Your task to perform on an android device: Search for dell alienware on newegg.com, select the first entry, and add it to the cart. Image 0: 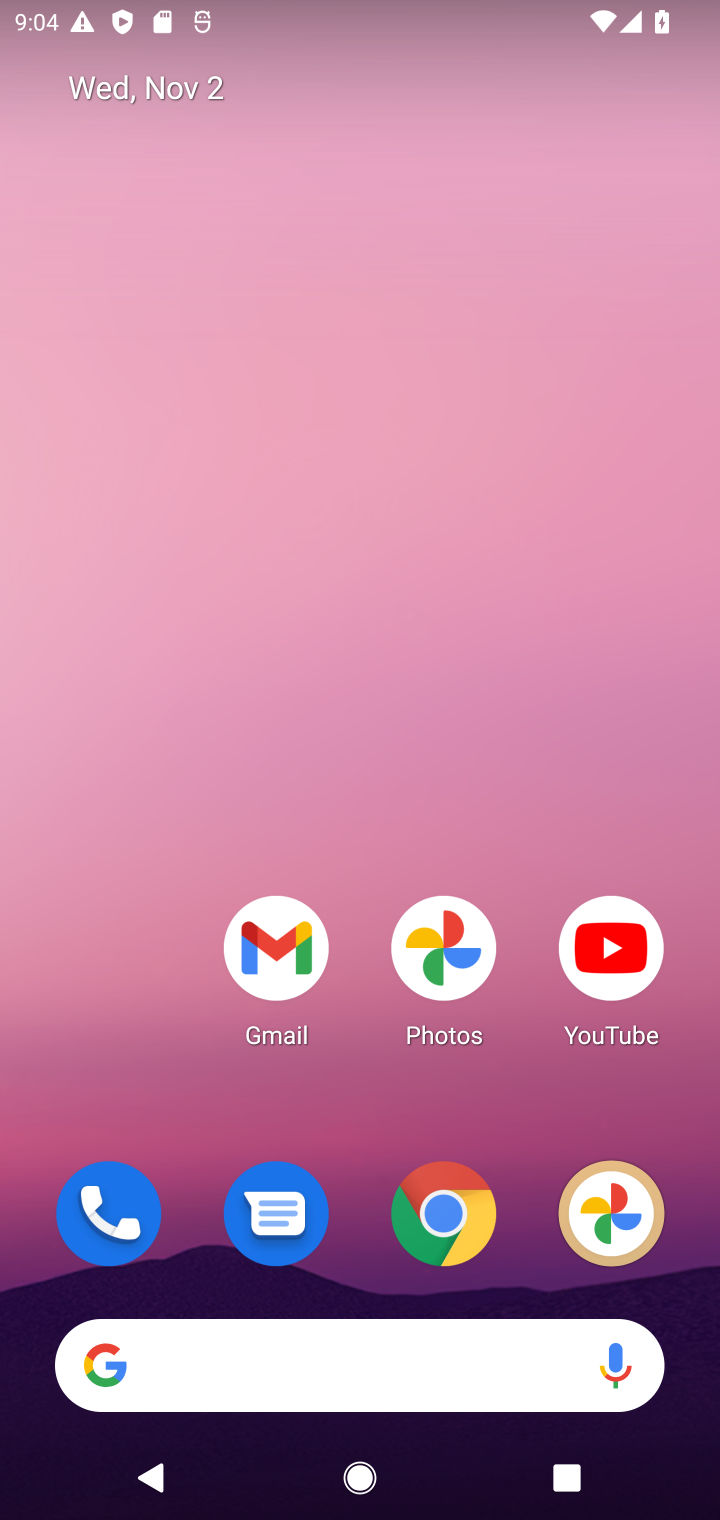
Step 0: click (451, 1246)
Your task to perform on an android device: Search for dell alienware on newegg.com, select the first entry, and add it to the cart. Image 1: 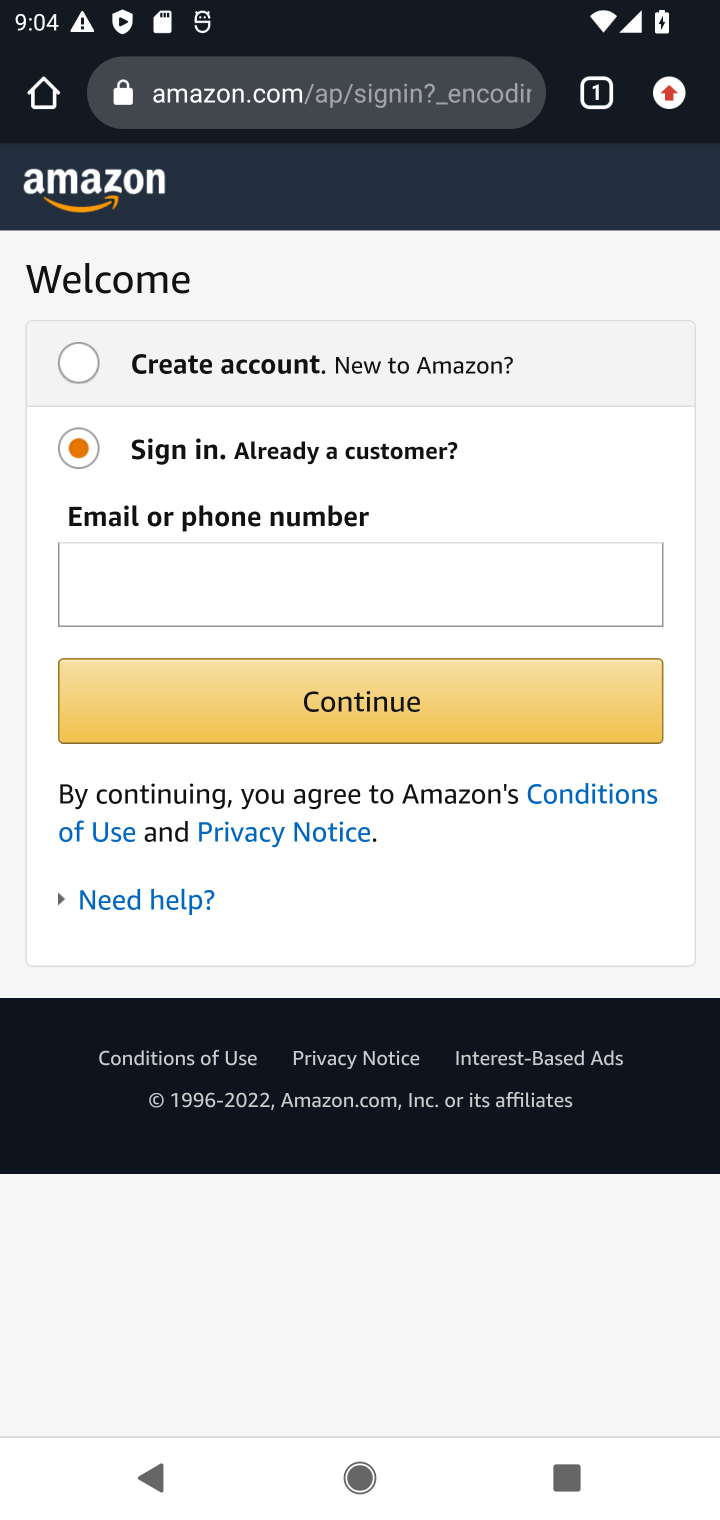
Step 1: click (279, 106)
Your task to perform on an android device: Search for dell alienware on newegg.com, select the first entry, and add it to the cart. Image 2: 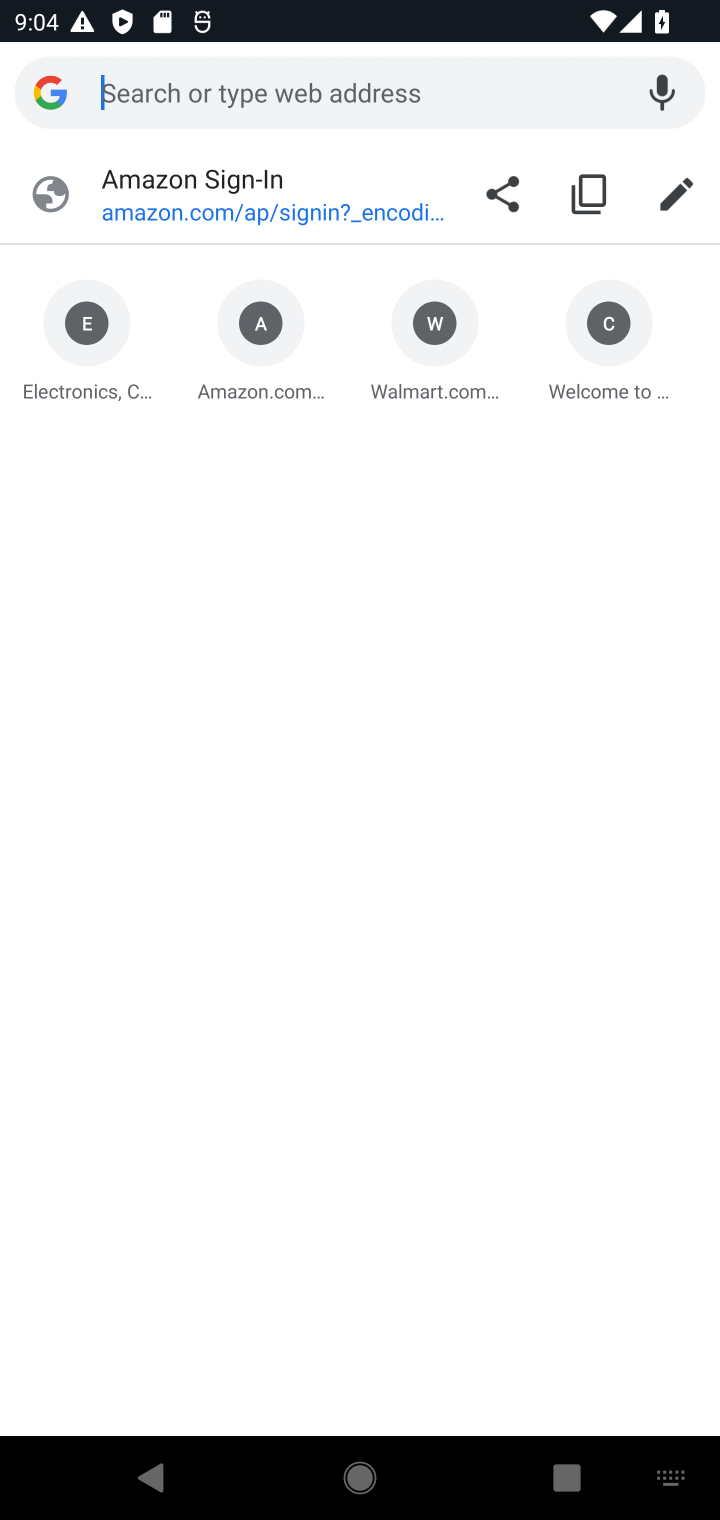
Step 2: type "newegg.com"
Your task to perform on an android device: Search for dell alienware on newegg.com, select the first entry, and add it to the cart. Image 3: 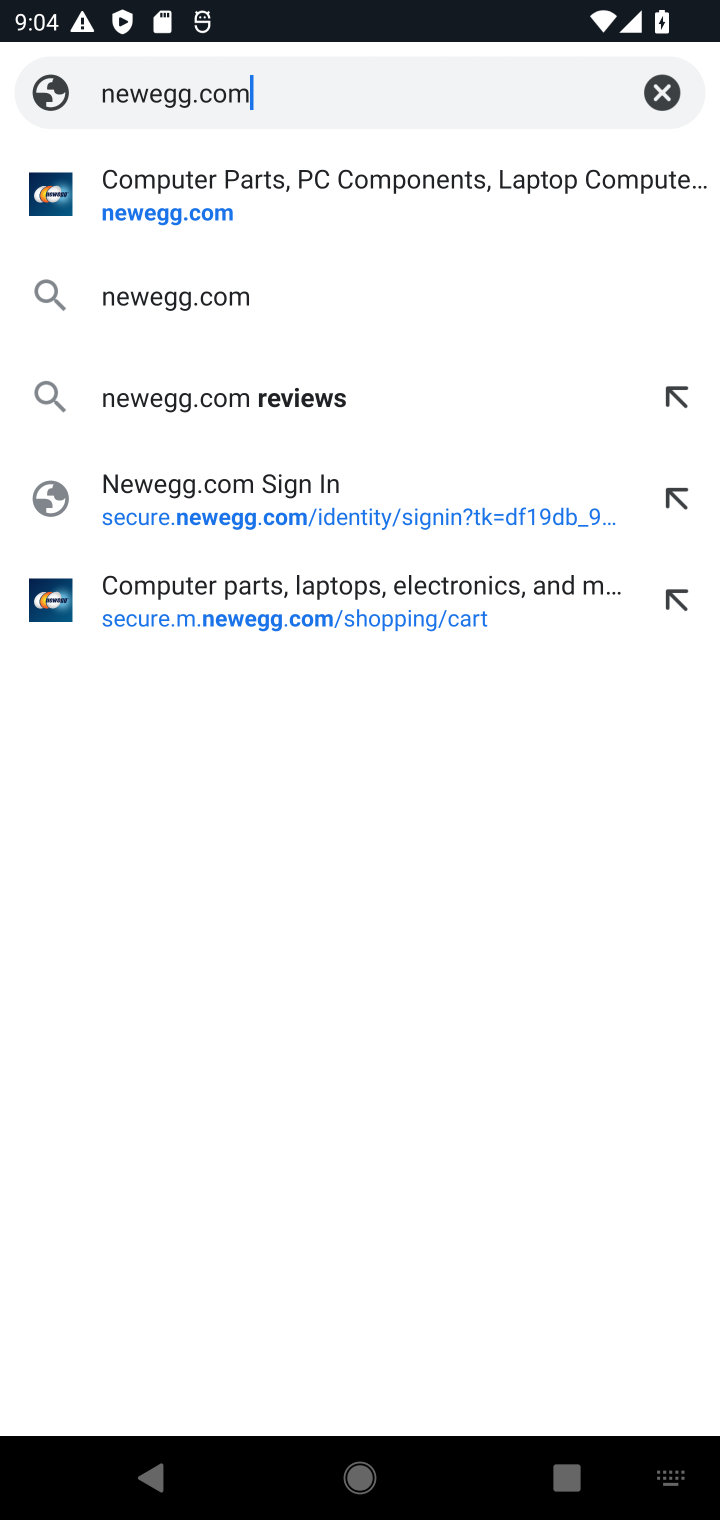
Step 3: click (234, 308)
Your task to perform on an android device: Search for dell alienware on newegg.com, select the first entry, and add it to the cart. Image 4: 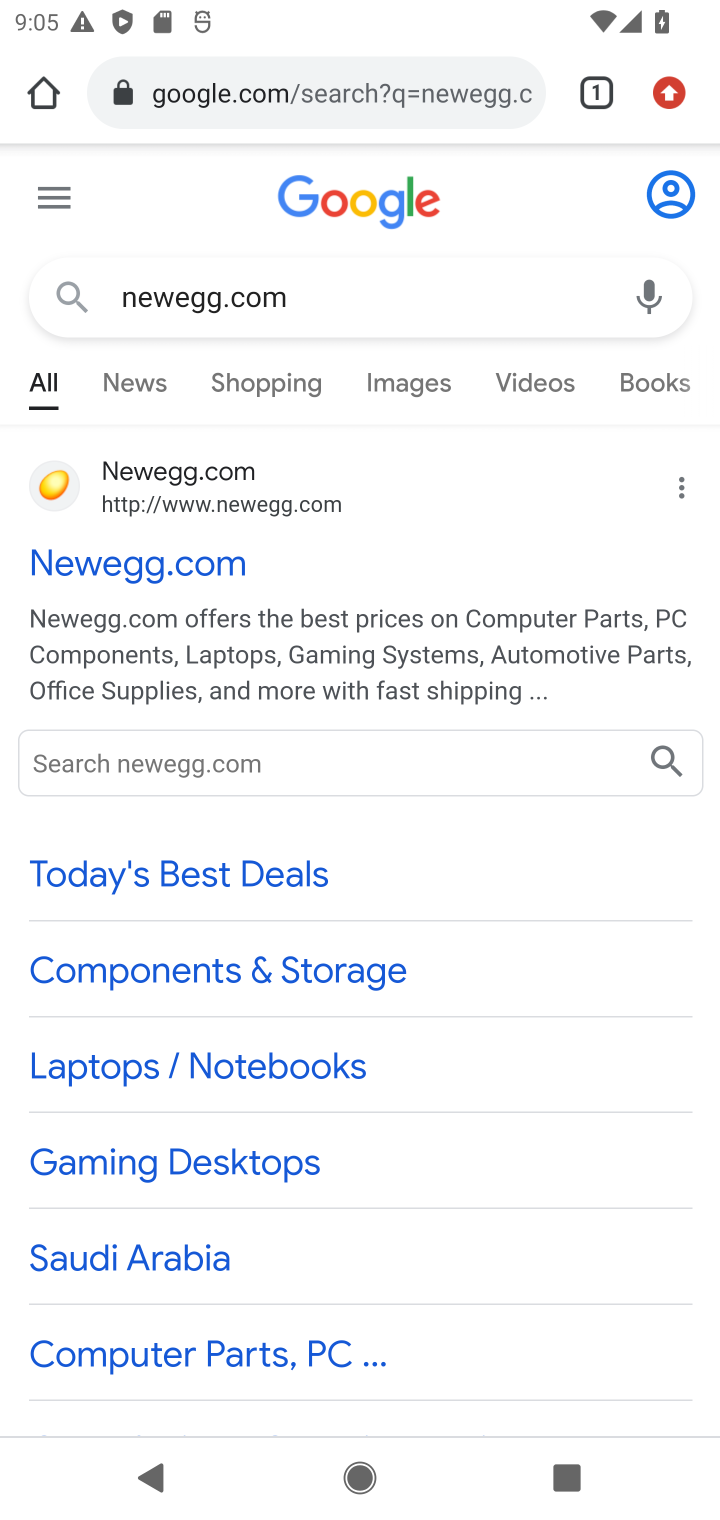
Step 4: drag from (245, 1080) to (278, 643)
Your task to perform on an android device: Search for dell alienware on newegg.com, select the first entry, and add it to the cart. Image 5: 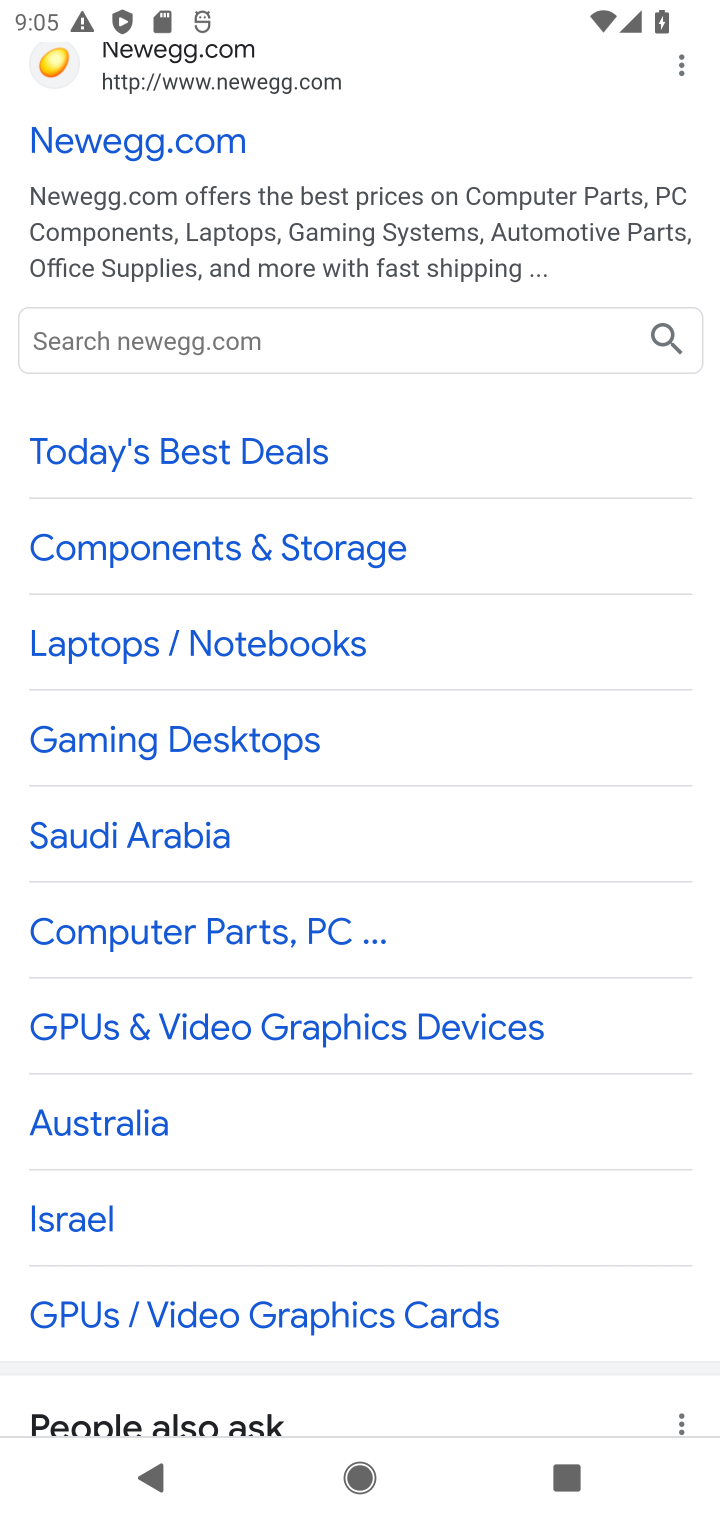
Step 5: drag from (278, 643) to (282, 1063)
Your task to perform on an android device: Search for dell alienware on newegg.com, select the first entry, and add it to the cart. Image 6: 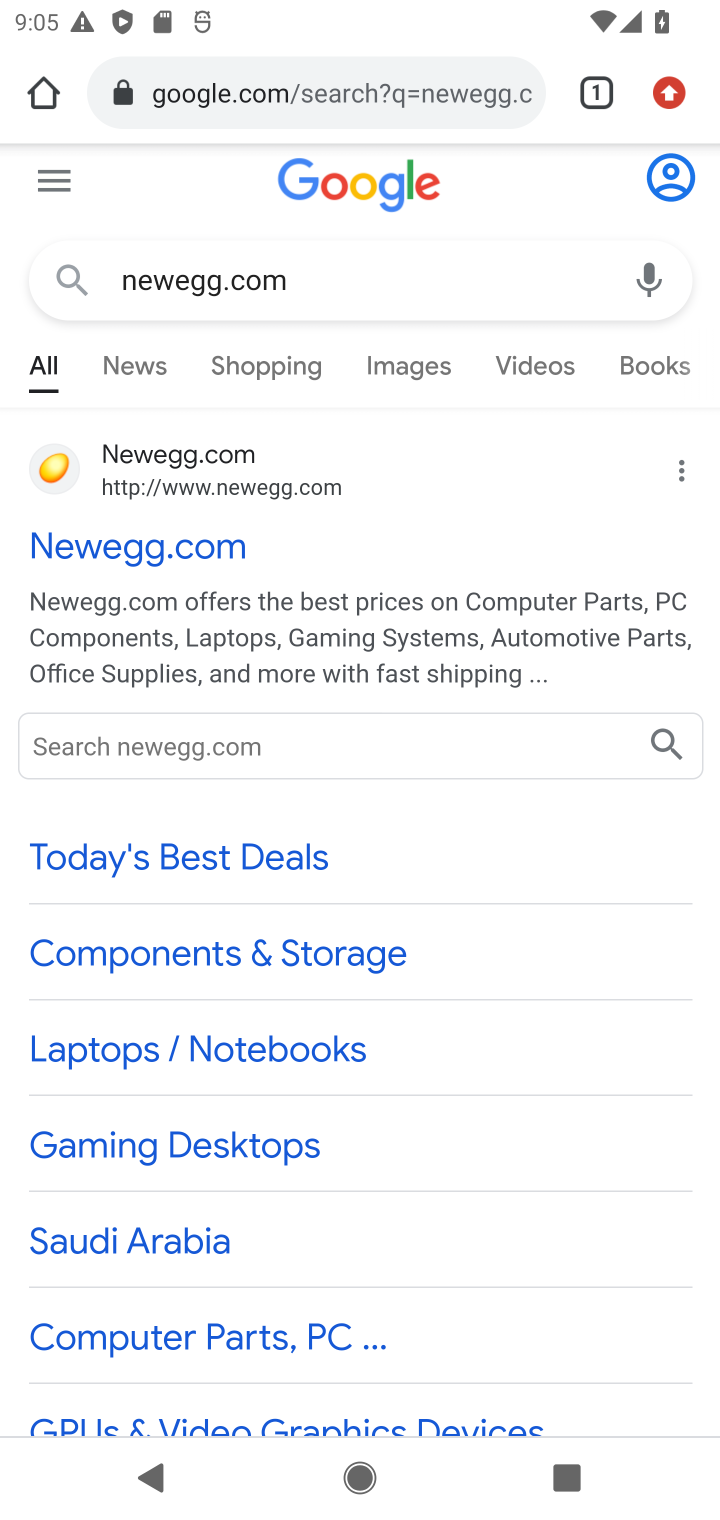
Step 6: click (191, 495)
Your task to perform on an android device: Search for dell alienware on newegg.com, select the first entry, and add it to the cart. Image 7: 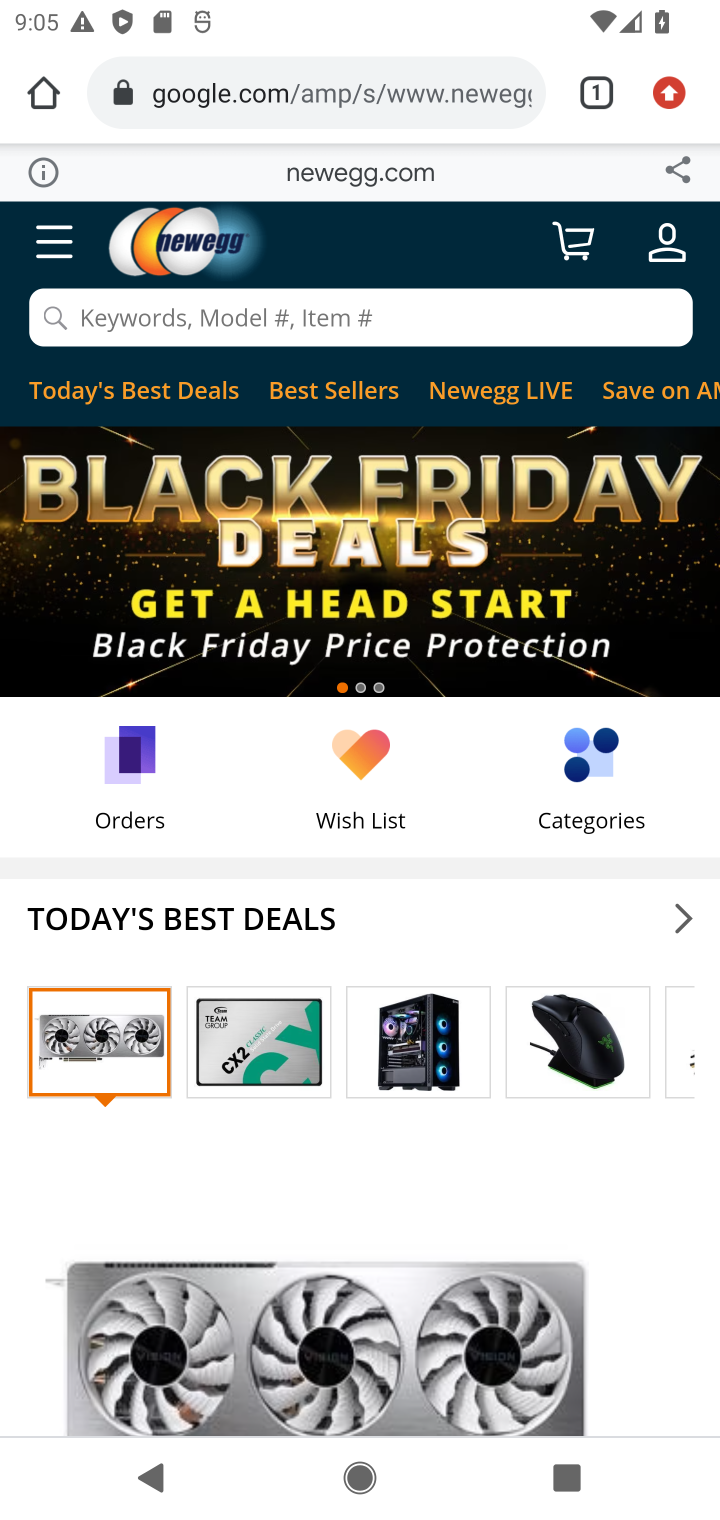
Step 7: click (253, 311)
Your task to perform on an android device: Search for dell alienware on newegg.com, select the first entry, and add it to the cart. Image 8: 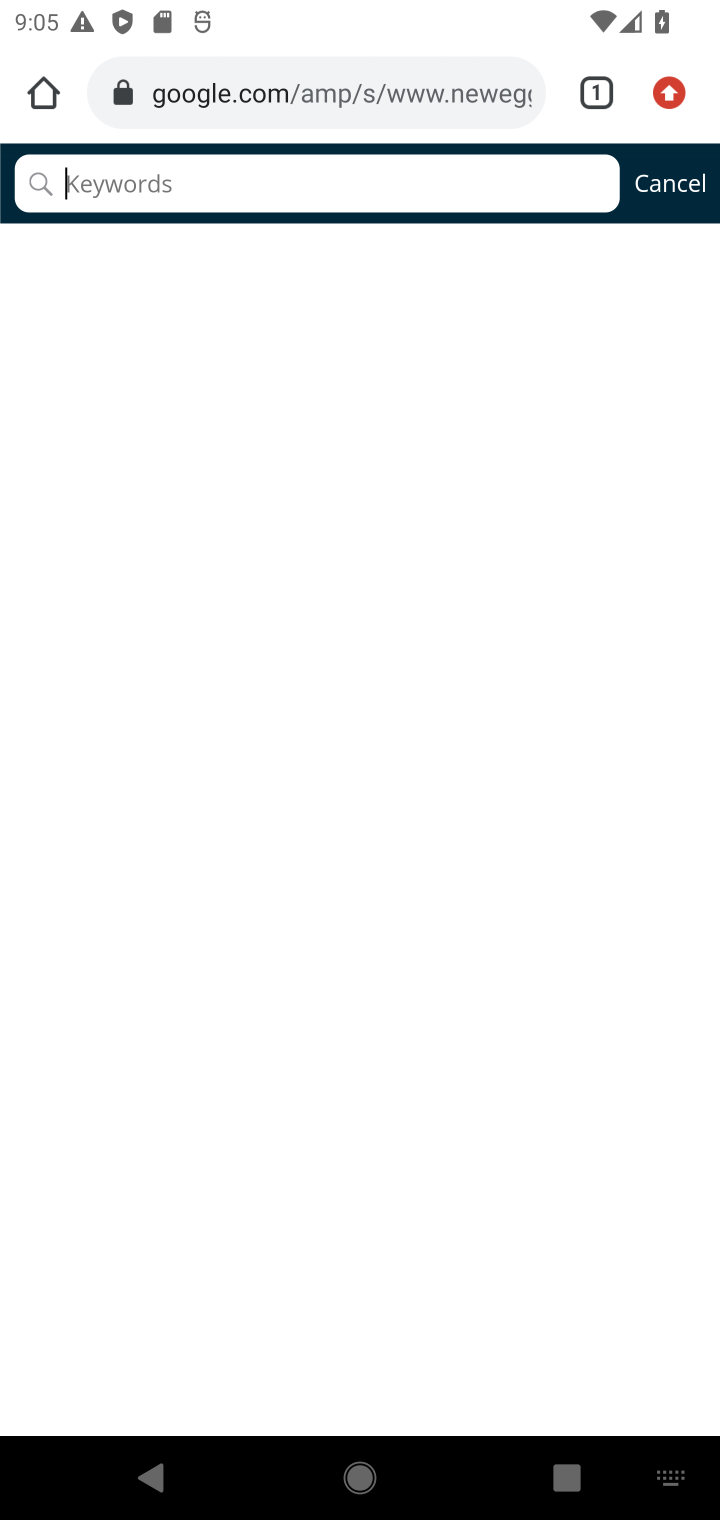
Step 8: type "dell alienware"
Your task to perform on an android device: Search for dell alienware on newegg.com, select the first entry, and add it to the cart. Image 9: 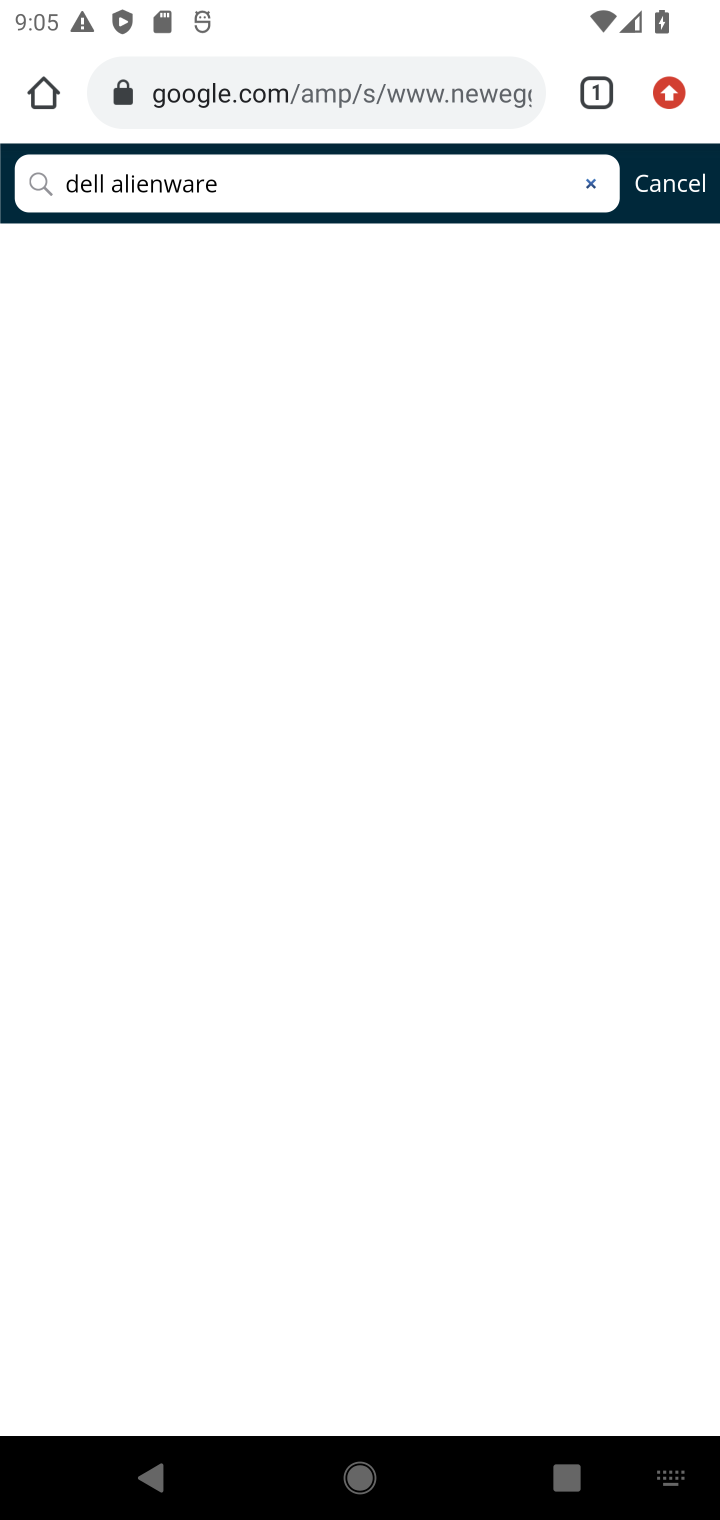
Step 9: click (43, 175)
Your task to perform on an android device: Search for dell alienware on newegg.com, select the first entry, and add it to the cart. Image 10: 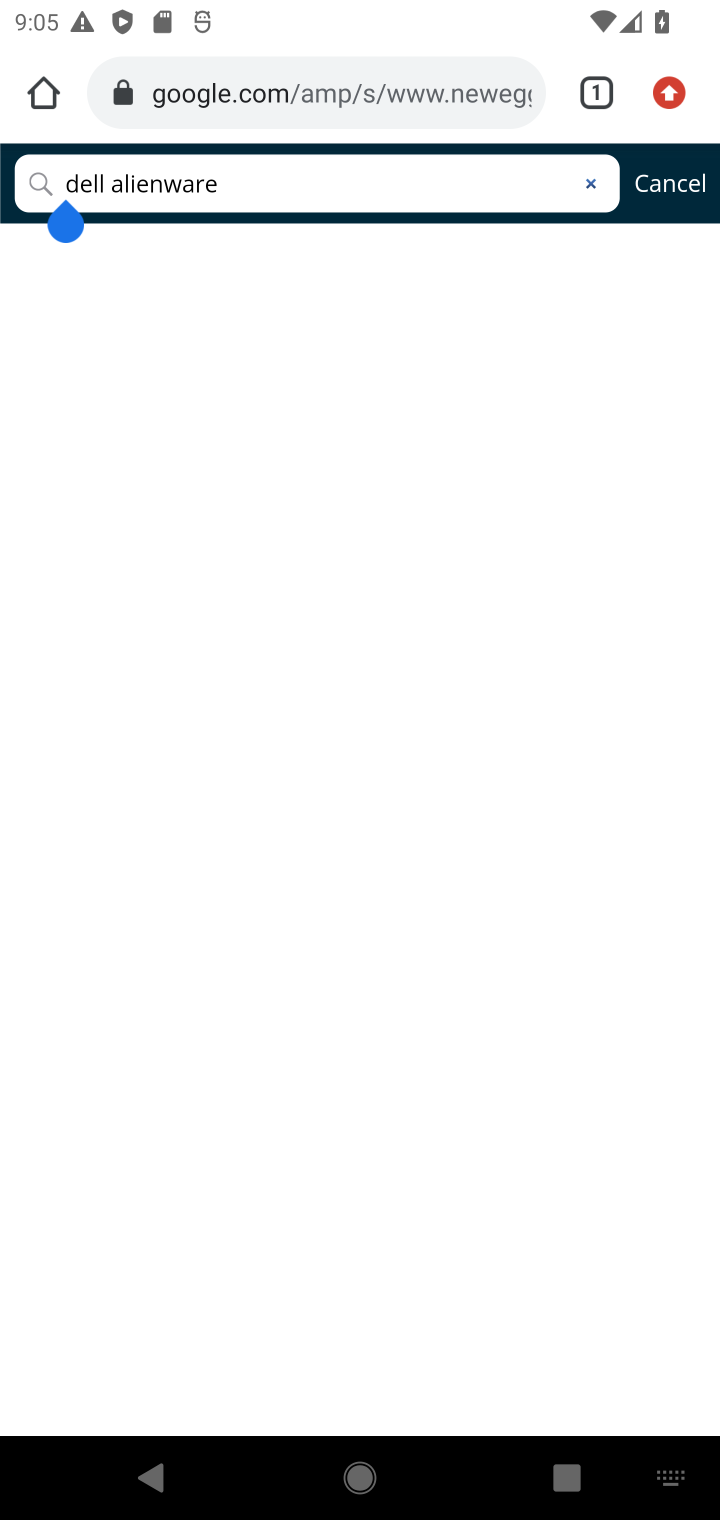
Step 10: task complete